Your task to perform on an android device: See recent photos Image 0: 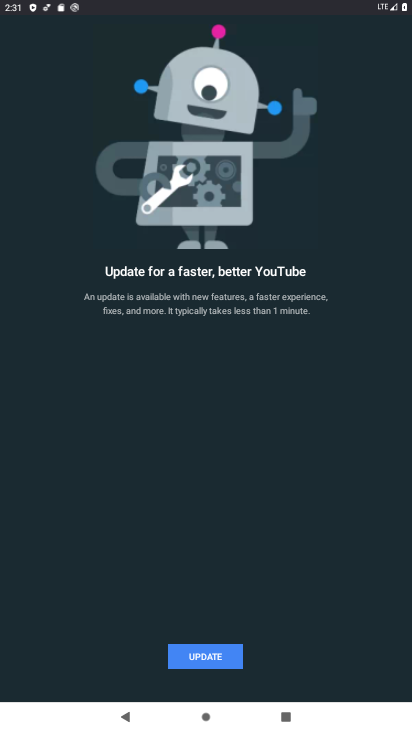
Step 0: press home button
Your task to perform on an android device: See recent photos Image 1: 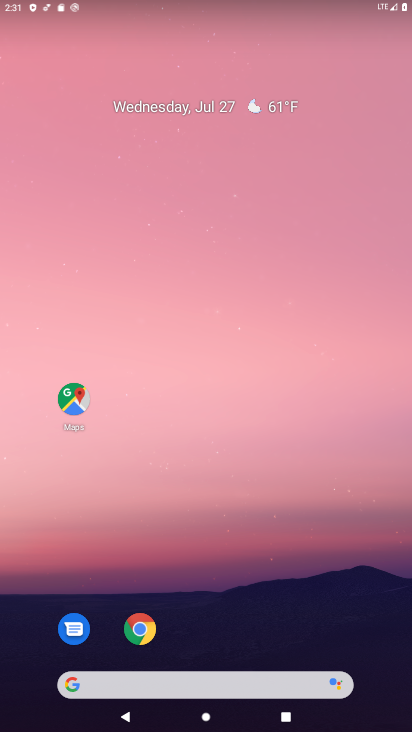
Step 1: drag from (176, 687) to (307, 40)
Your task to perform on an android device: See recent photos Image 2: 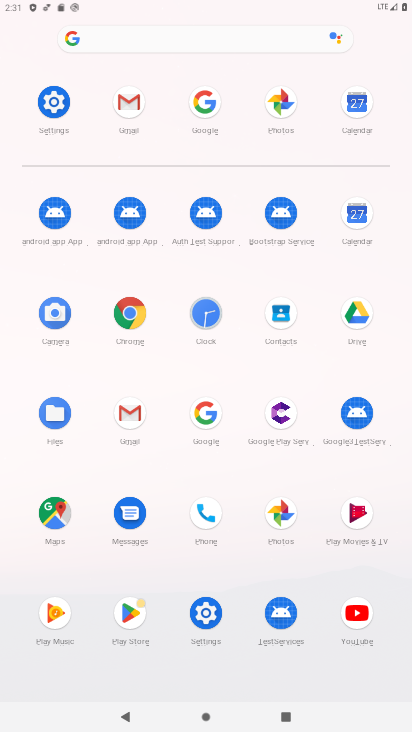
Step 2: click (284, 102)
Your task to perform on an android device: See recent photos Image 3: 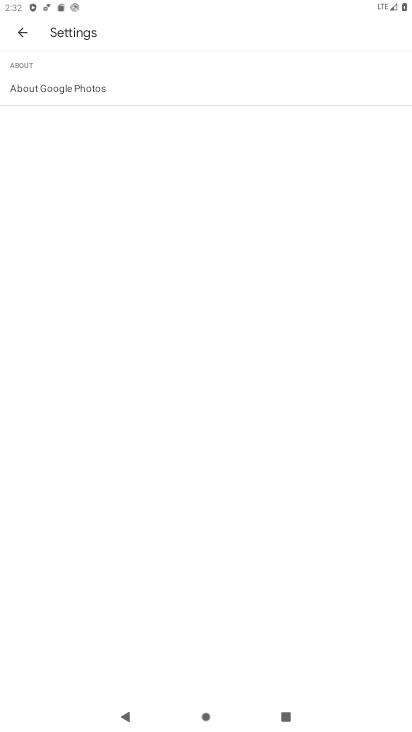
Step 3: press back button
Your task to perform on an android device: See recent photos Image 4: 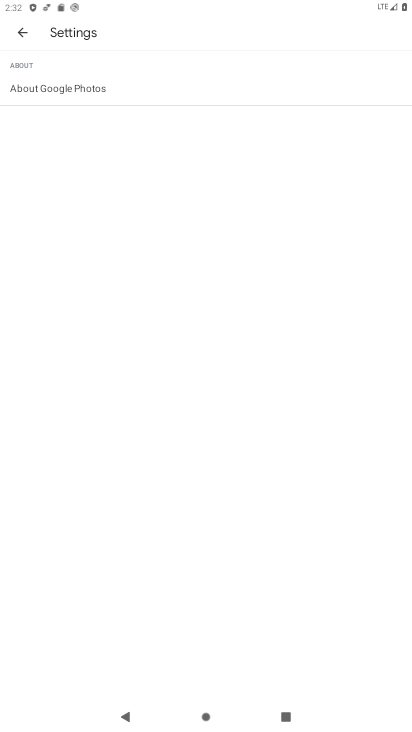
Step 4: press back button
Your task to perform on an android device: See recent photos Image 5: 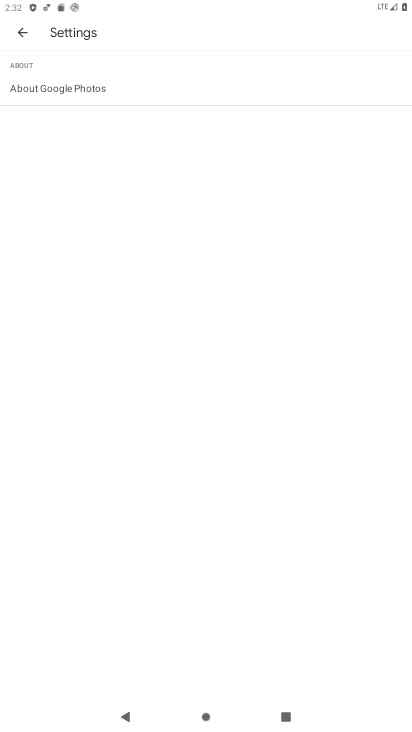
Step 5: press back button
Your task to perform on an android device: See recent photos Image 6: 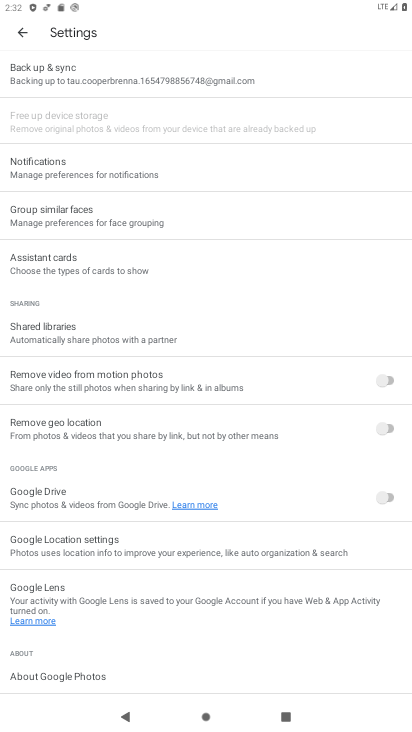
Step 6: press back button
Your task to perform on an android device: See recent photos Image 7: 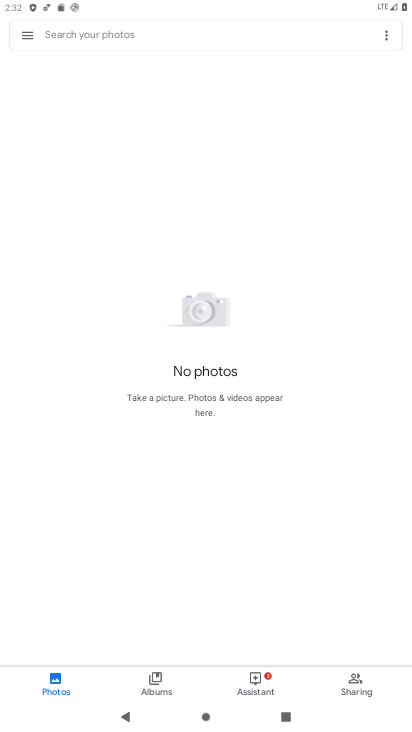
Step 7: click (154, 680)
Your task to perform on an android device: See recent photos Image 8: 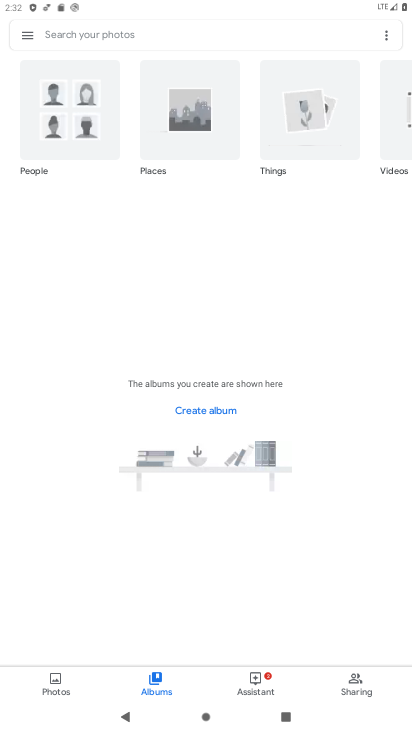
Step 8: click (75, 105)
Your task to perform on an android device: See recent photos Image 9: 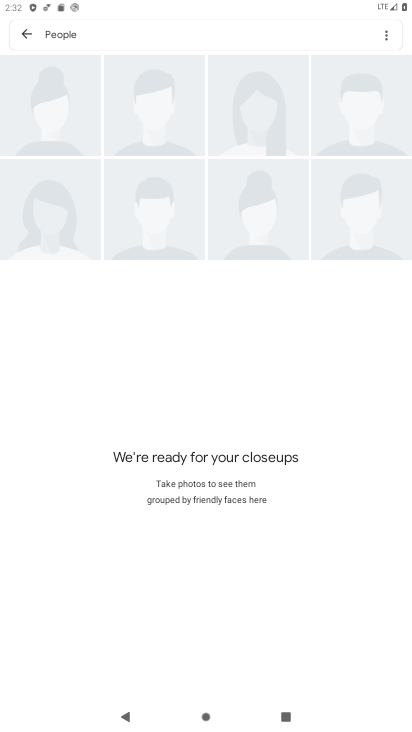
Step 9: press back button
Your task to perform on an android device: See recent photos Image 10: 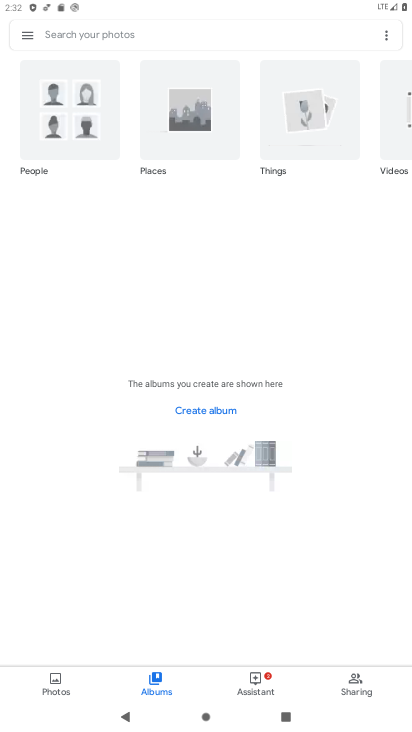
Step 10: click (300, 100)
Your task to perform on an android device: See recent photos Image 11: 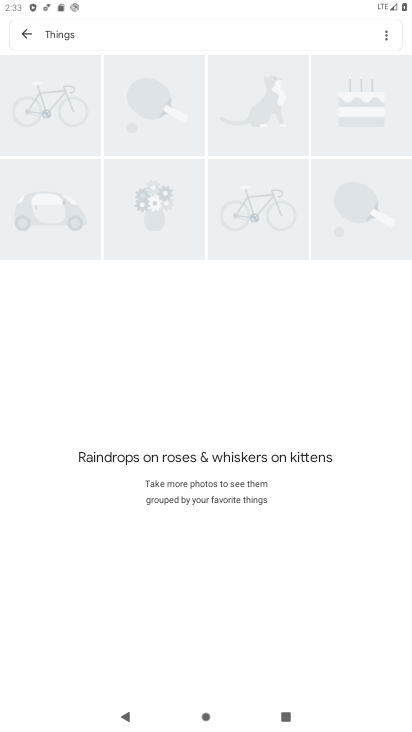
Step 11: task complete